Your task to perform on an android device: Open Google Chrome and open the bookmarks view Image 0: 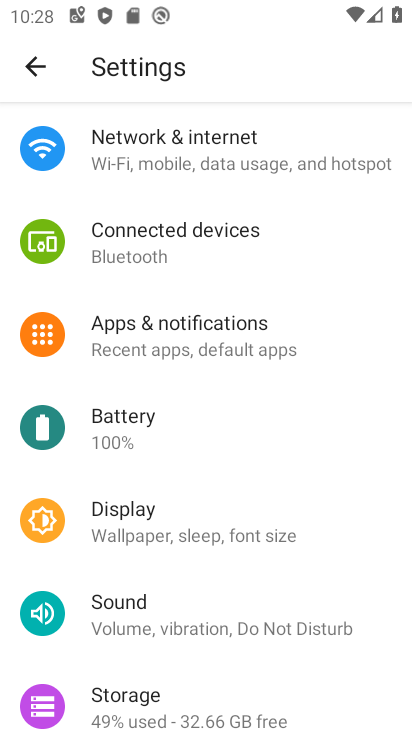
Step 0: press home button
Your task to perform on an android device: Open Google Chrome and open the bookmarks view Image 1: 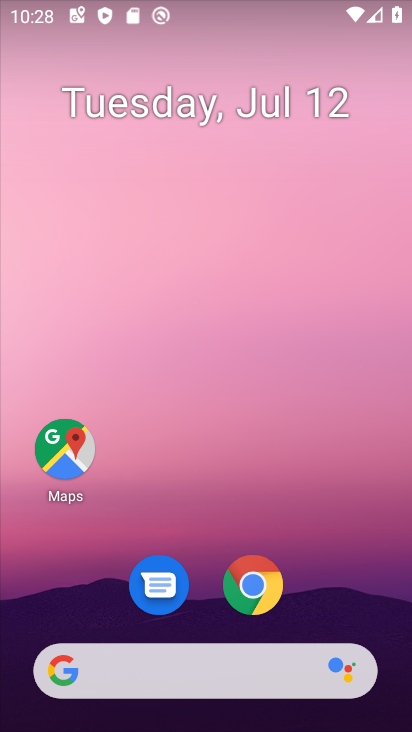
Step 1: drag from (207, 513) to (269, 0)
Your task to perform on an android device: Open Google Chrome and open the bookmarks view Image 2: 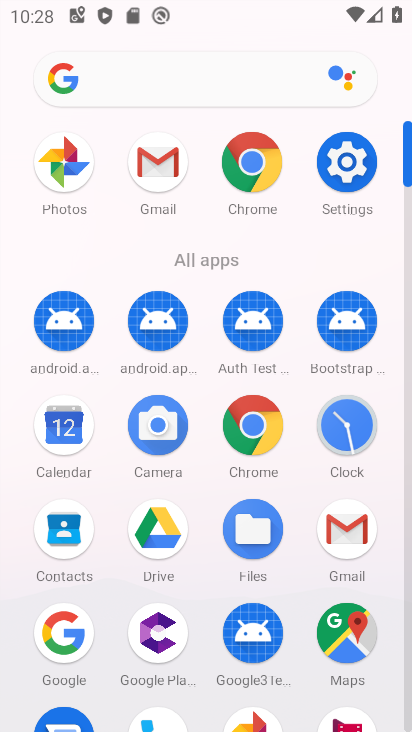
Step 2: click (241, 171)
Your task to perform on an android device: Open Google Chrome and open the bookmarks view Image 3: 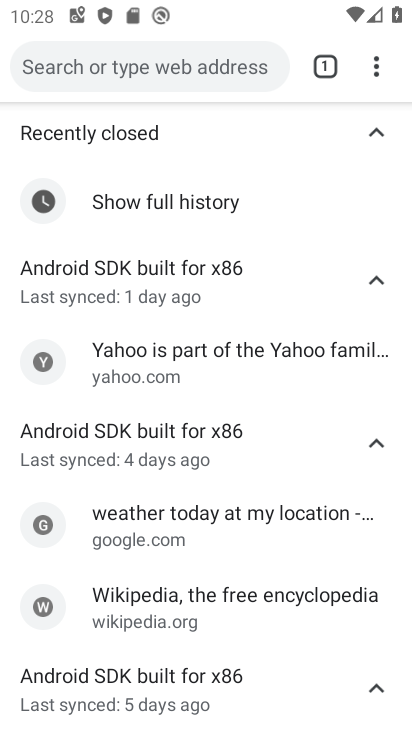
Step 3: press home button
Your task to perform on an android device: Open Google Chrome and open the bookmarks view Image 4: 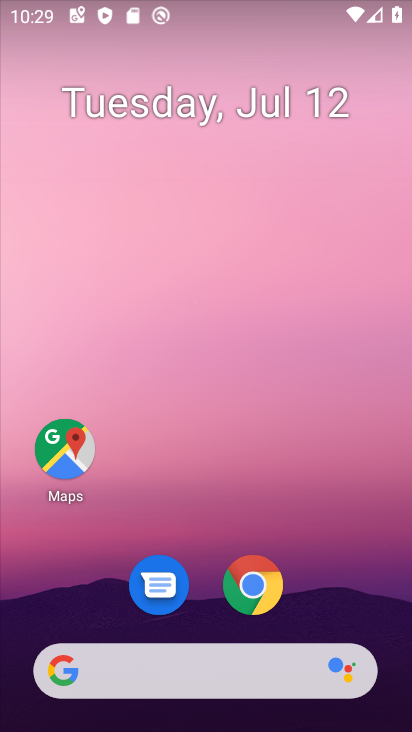
Step 4: click (258, 583)
Your task to perform on an android device: Open Google Chrome and open the bookmarks view Image 5: 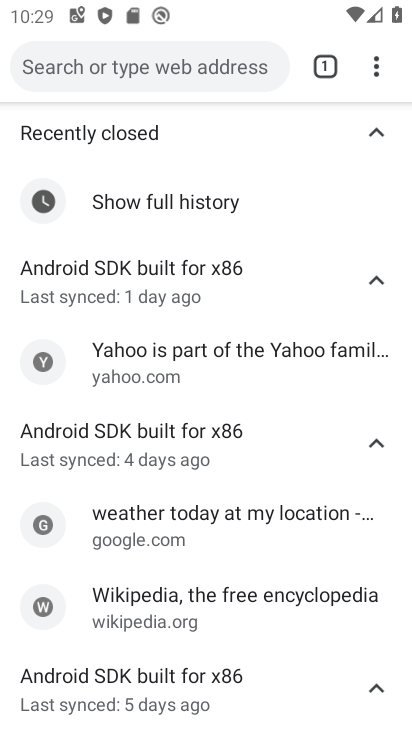
Step 5: click (378, 70)
Your task to perform on an android device: Open Google Chrome and open the bookmarks view Image 6: 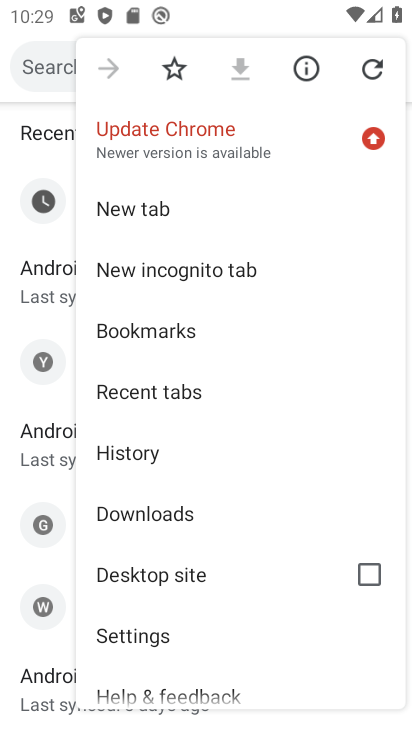
Step 6: click (171, 331)
Your task to perform on an android device: Open Google Chrome and open the bookmarks view Image 7: 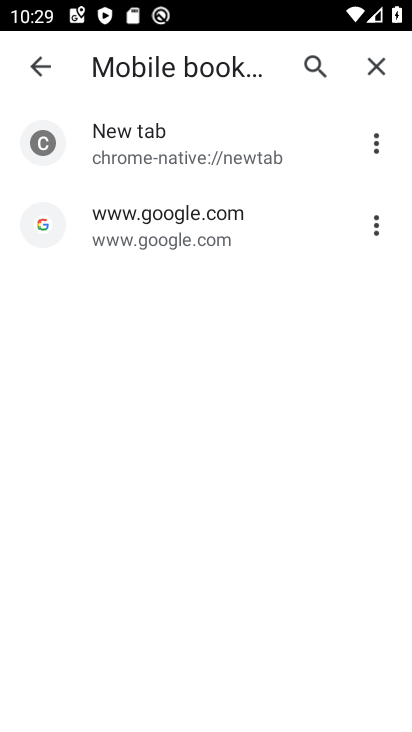
Step 7: task complete